Your task to perform on an android device: Search for Mexican restaurants on Maps Image 0: 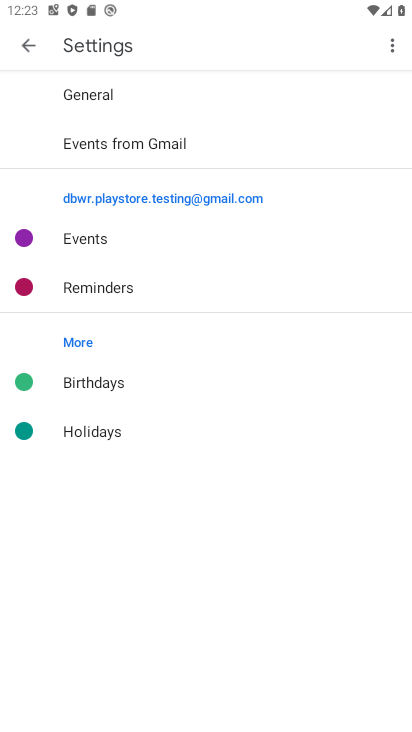
Step 0: press home button
Your task to perform on an android device: Search for Mexican restaurants on Maps Image 1: 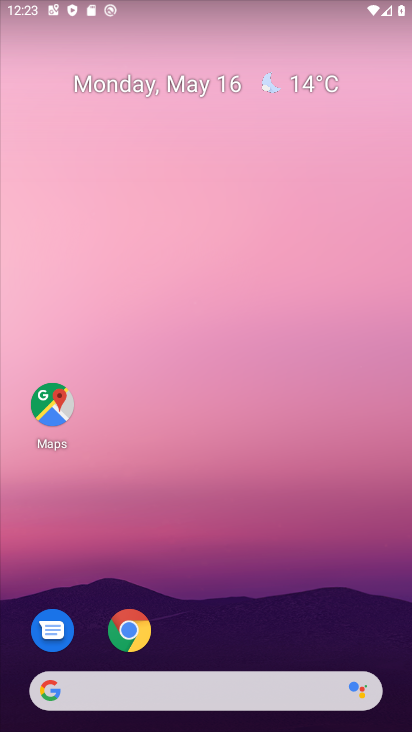
Step 1: click (55, 413)
Your task to perform on an android device: Search for Mexican restaurants on Maps Image 2: 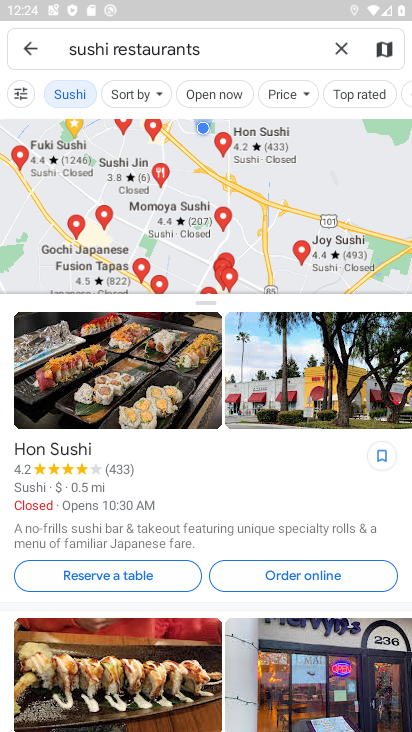
Step 2: click (334, 51)
Your task to perform on an android device: Search for Mexican restaurants on Maps Image 3: 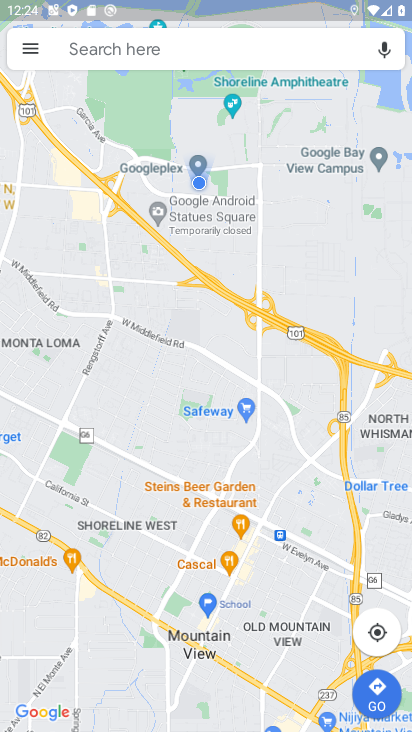
Step 3: click (166, 37)
Your task to perform on an android device: Search for Mexican restaurants on Maps Image 4: 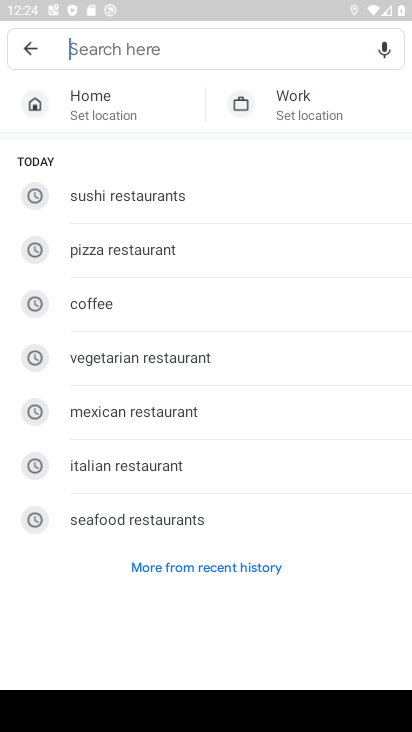
Step 4: click (157, 406)
Your task to perform on an android device: Search for Mexican restaurants on Maps Image 5: 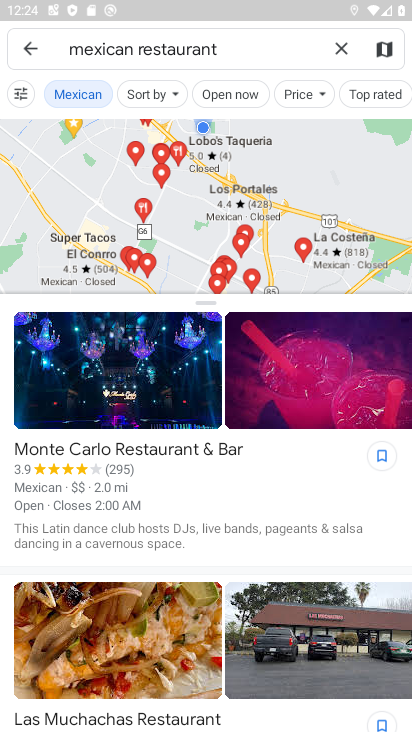
Step 5: task complete